Your task to perform on an android device: Go to privacy settings Image 0: 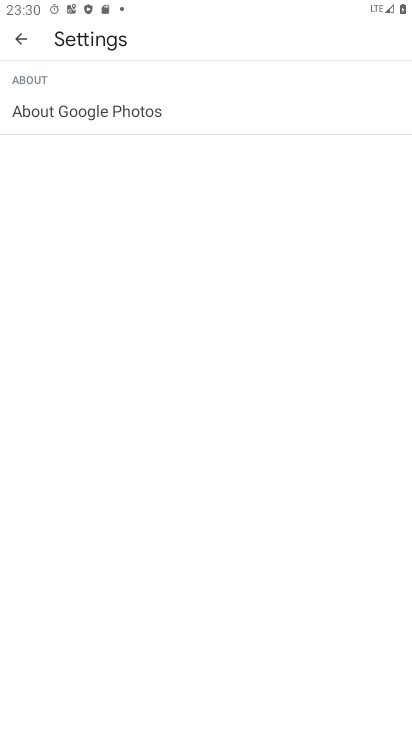
Step 0: press home button
Your task to perform on an android device: Go to privacy settings Image 1: 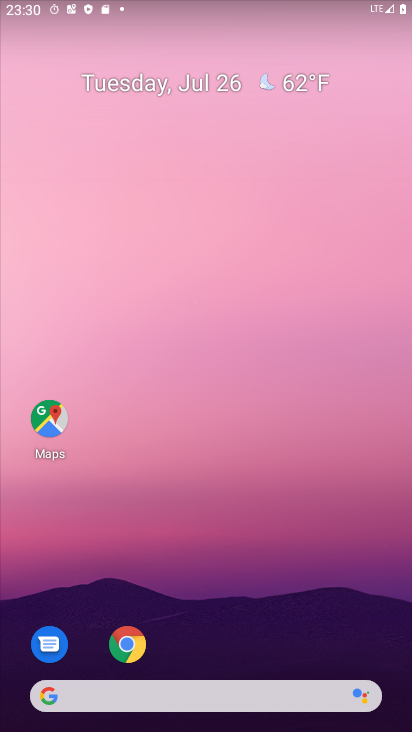
Step 1: drag from (229, 665) to (212, 0)
Your task to perform on an android device: Go to privacy settings Image 2: 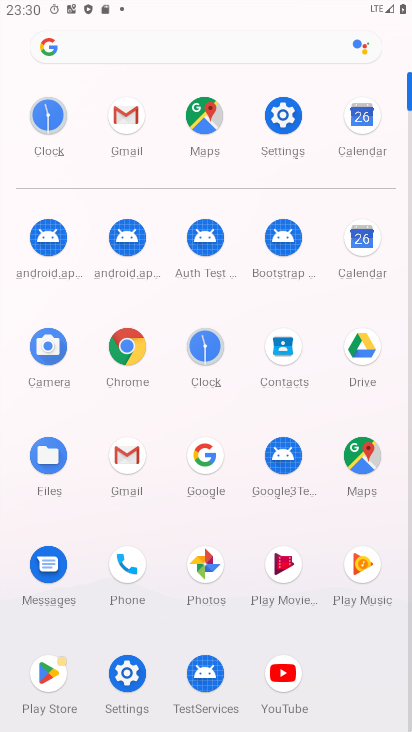
Step 2: click (277, 114)
Your task to perform on an android device: Go to privacy settings Image 3: 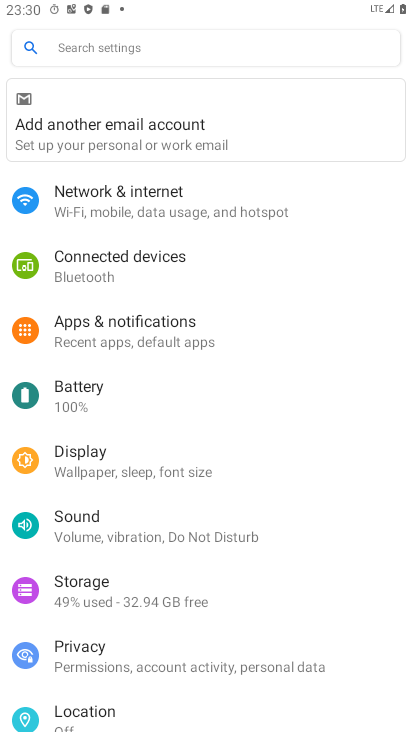
Step 3: click (94, 647)
Your task to perform on an android device: Go to privacy settings Image 4: 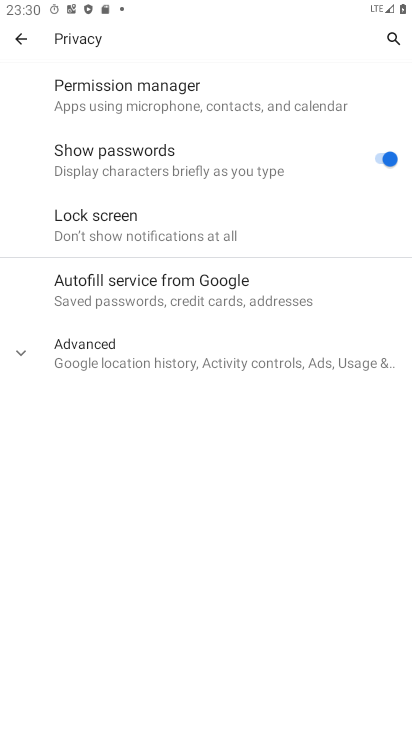
Step 4: task complete